Your task to perform on an android device: change the clock style Image 0: 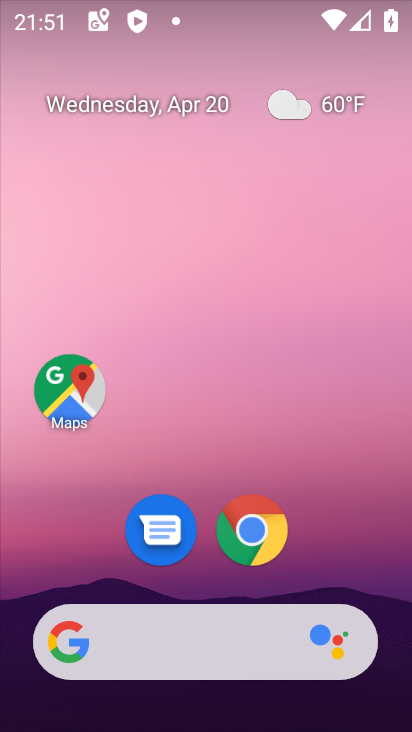
Step 0: drag from (347, 510) to (349, 101)
Your task to perform on an android device: change the clock style Image 1: 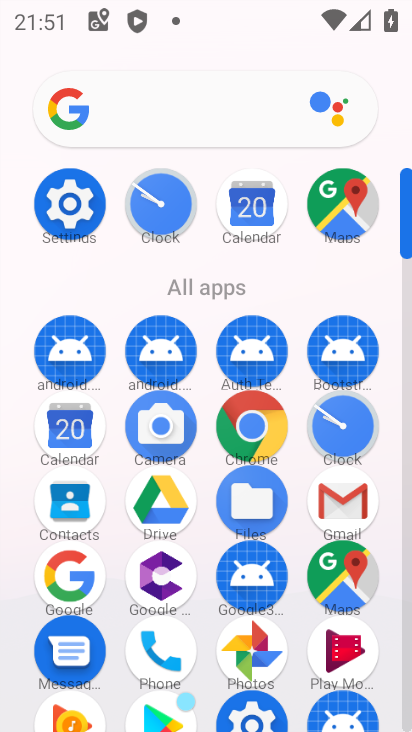
Step 1: click (169, 206)
Your task to perform on an android device: change the clock style Image 2: 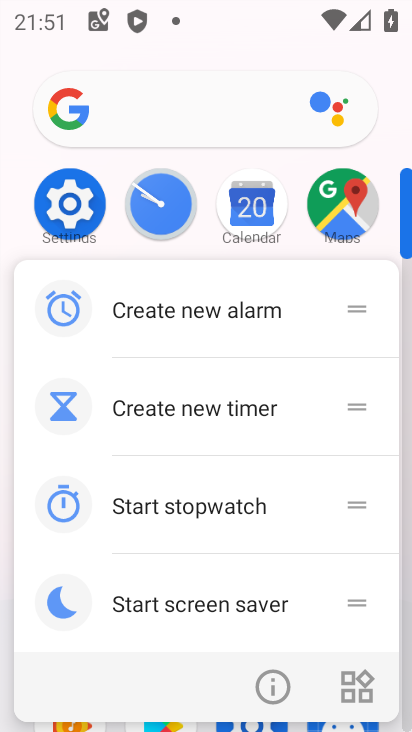
Step 2: click (169, 206)
Your task to perform on an android device: change the clock style Image 3: 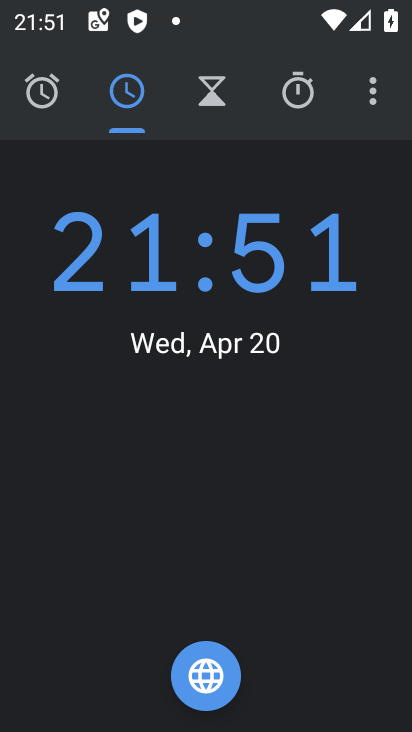
Step 3: click (374, 93)
Your task to perform on an android device: change the clock style Image 4: 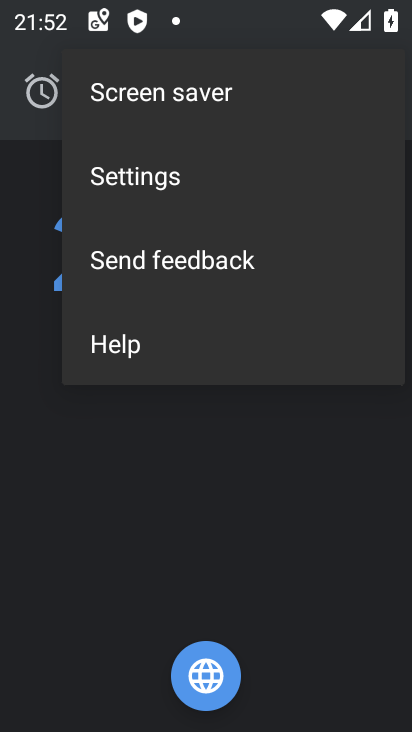
Step 4: click (231, 172)
Your task to perform on an android device: change the clock style Image 5: 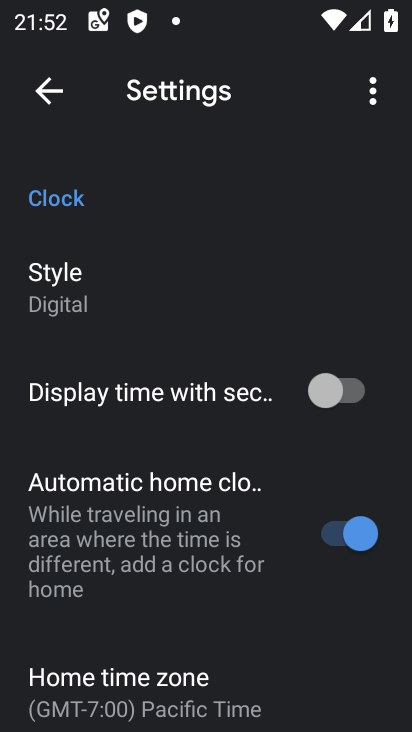
Step 5: click (129, 292)
Your task to perform on an android device: change the clock style Image 6: 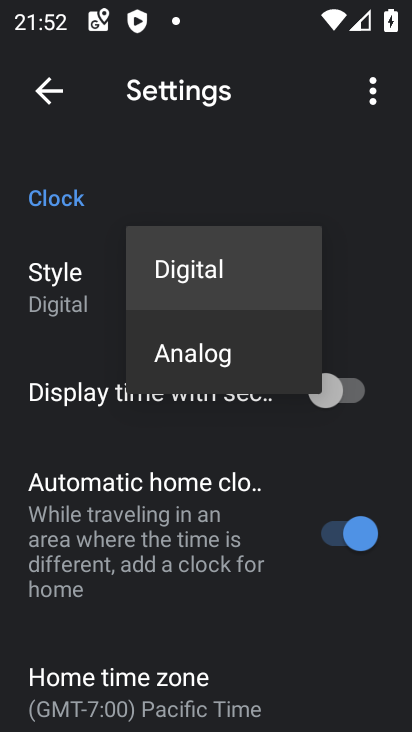
Step 6: click (192, 345)
Your task to perform on an android device: change the clock style Image 7: 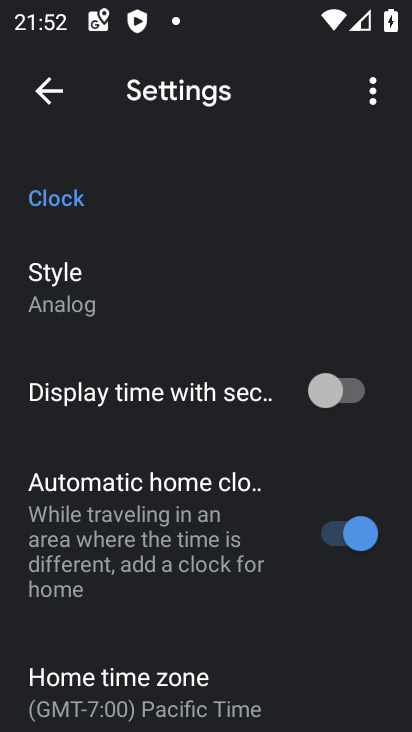
Step 7: task complete